Your task to perform on an android device: Search for Mexican restaurants on Maps Image 0: 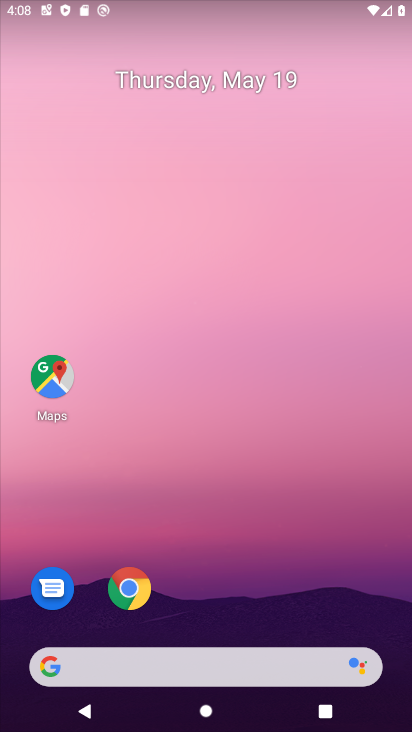
Step 0: click (65, 387)
Your task to perform on an android device: Search for Mexican restaurants on Maps Image 1: 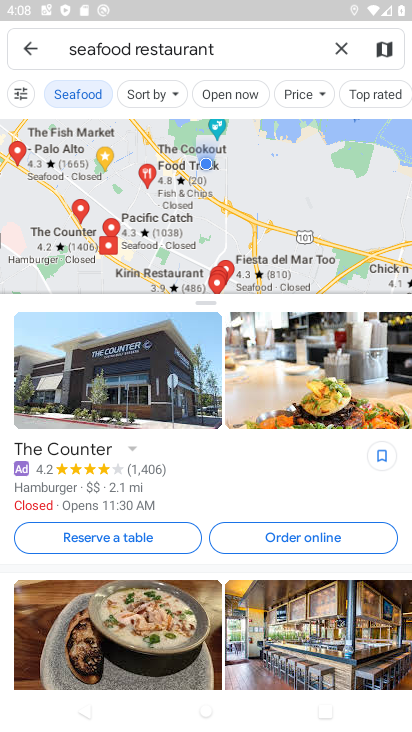
Step 1: click (350, 44)
Your task to perform on an android device: Search for Mexican restaurants on Maps Image 2: 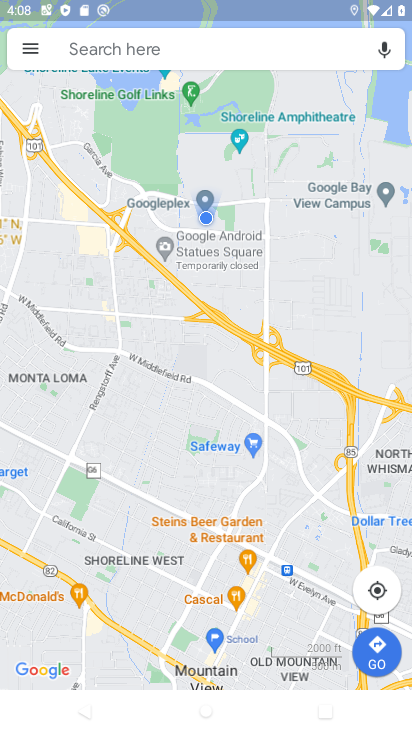
Step 2: click (335, 43)
Your task to perform on an android device: Search for Mexican restaurants on Maps Image 3: 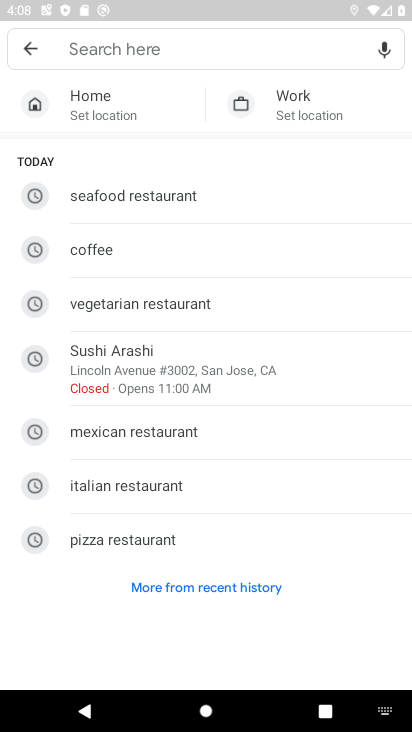
Step 3: click (195, 433)
Your task to perform on an android device: Search for Mexican restaurants on Maps Image 4: 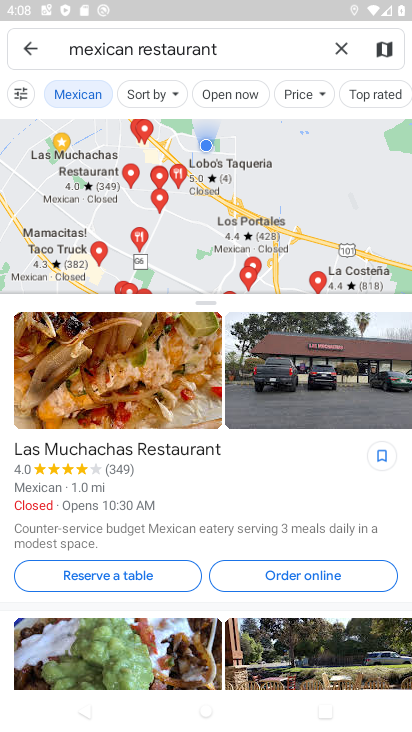
Step 4: task complete